Your task to perform on an android device: Search for sushi restaurants on Maps Image 0: 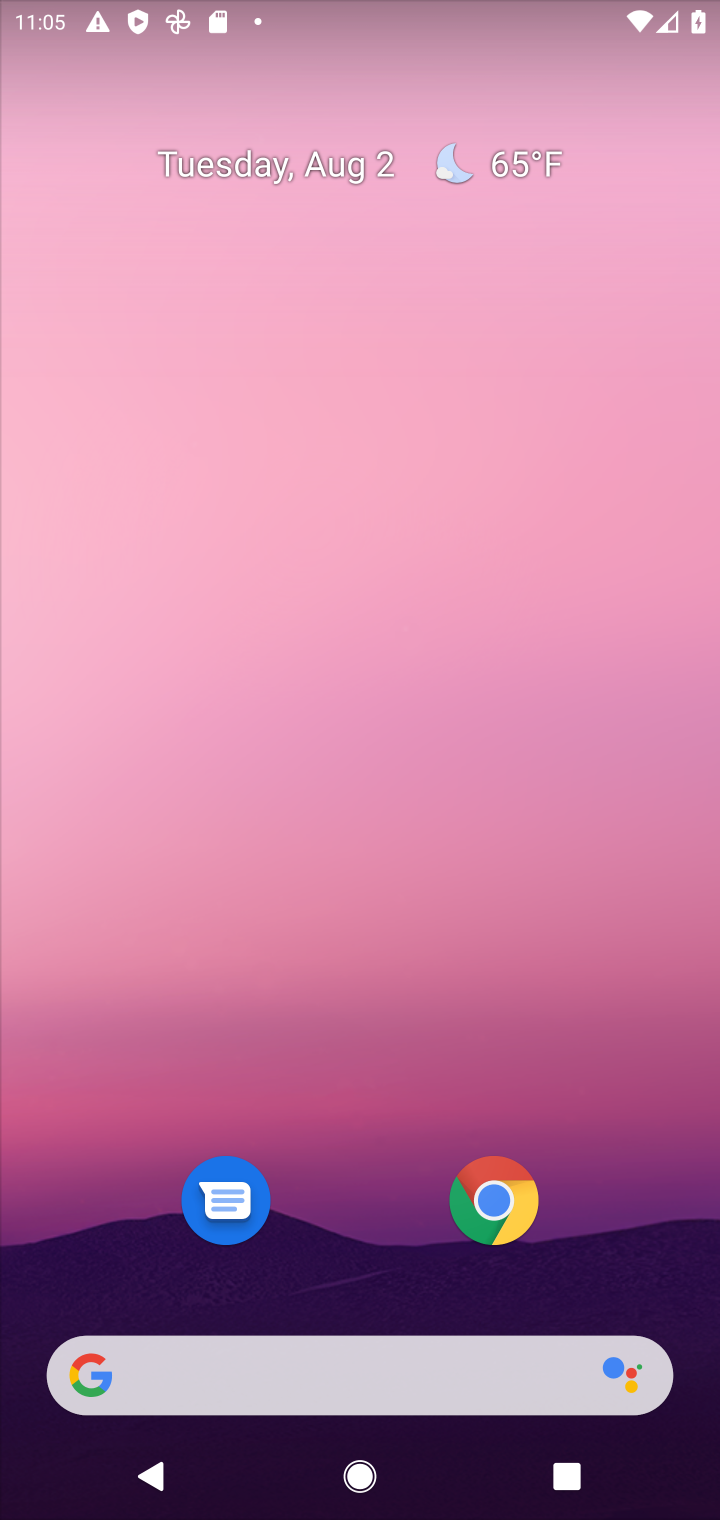
Step 0: drag from (621, 880) to (589, 173)
Your task to perform on an android device: Search for sushi restaurants on Maps Image 1: 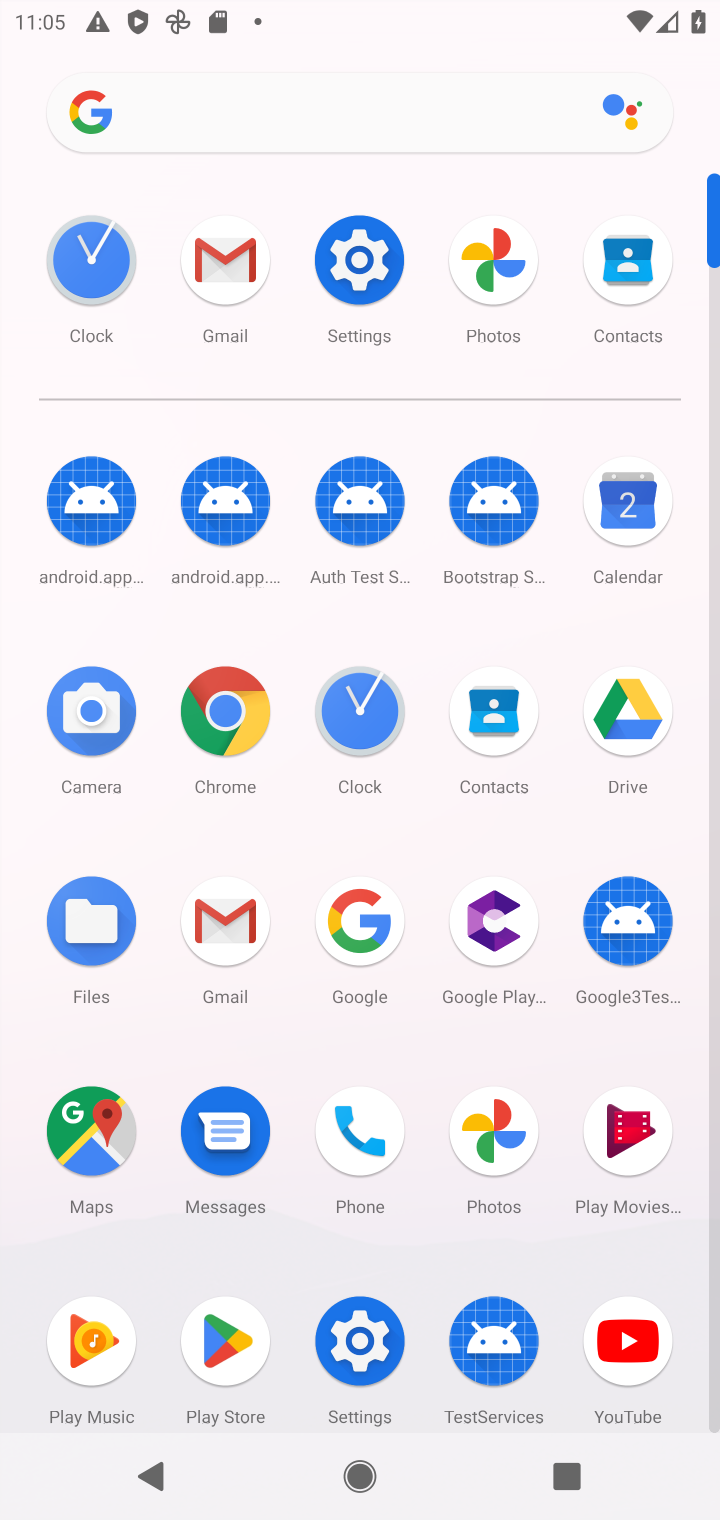
Step 1: click (90, 1133)
Your task to perform on an android device: Search for sushi restaurants on Maps Image 2: 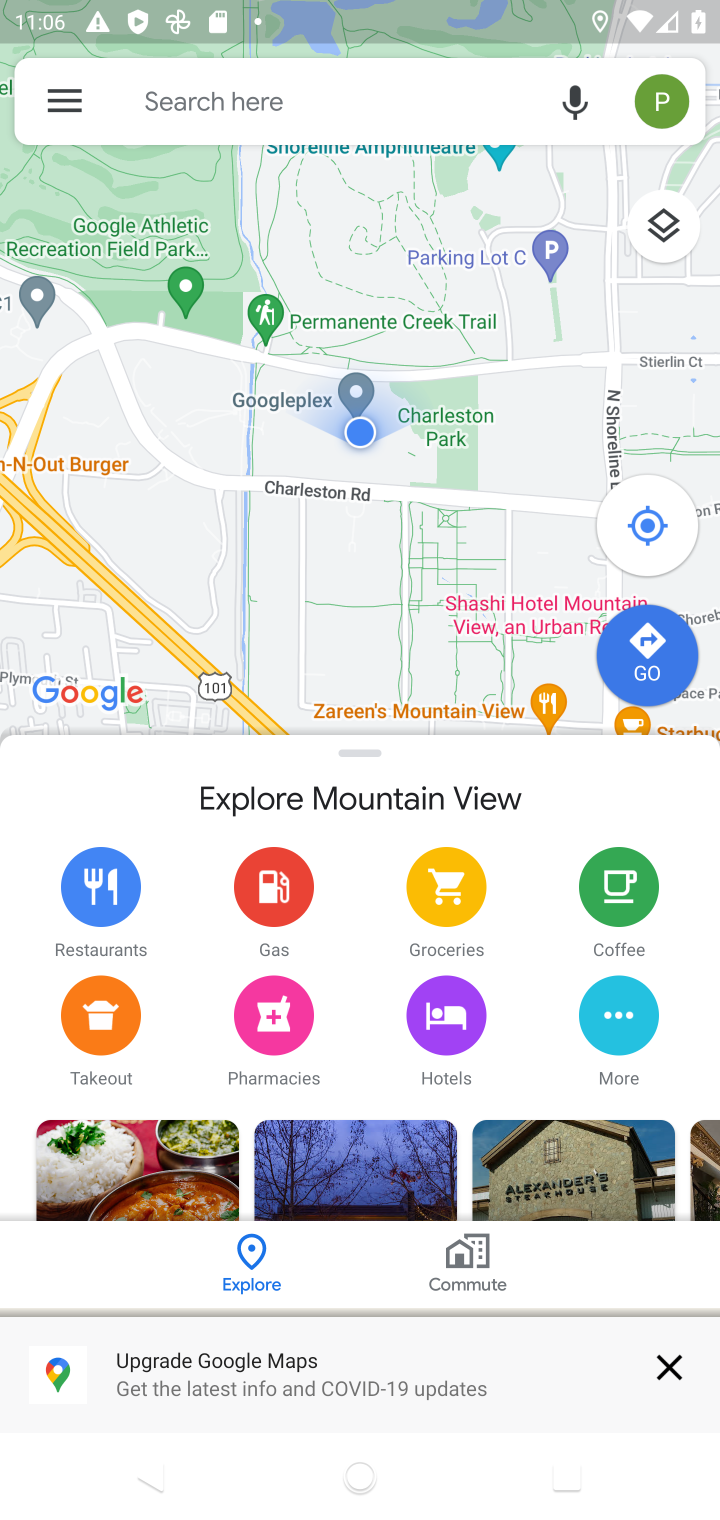
Step 2: click (208, 91)
Your task to perform on an android device: Search for sushi restaurants on Maps Image 3: 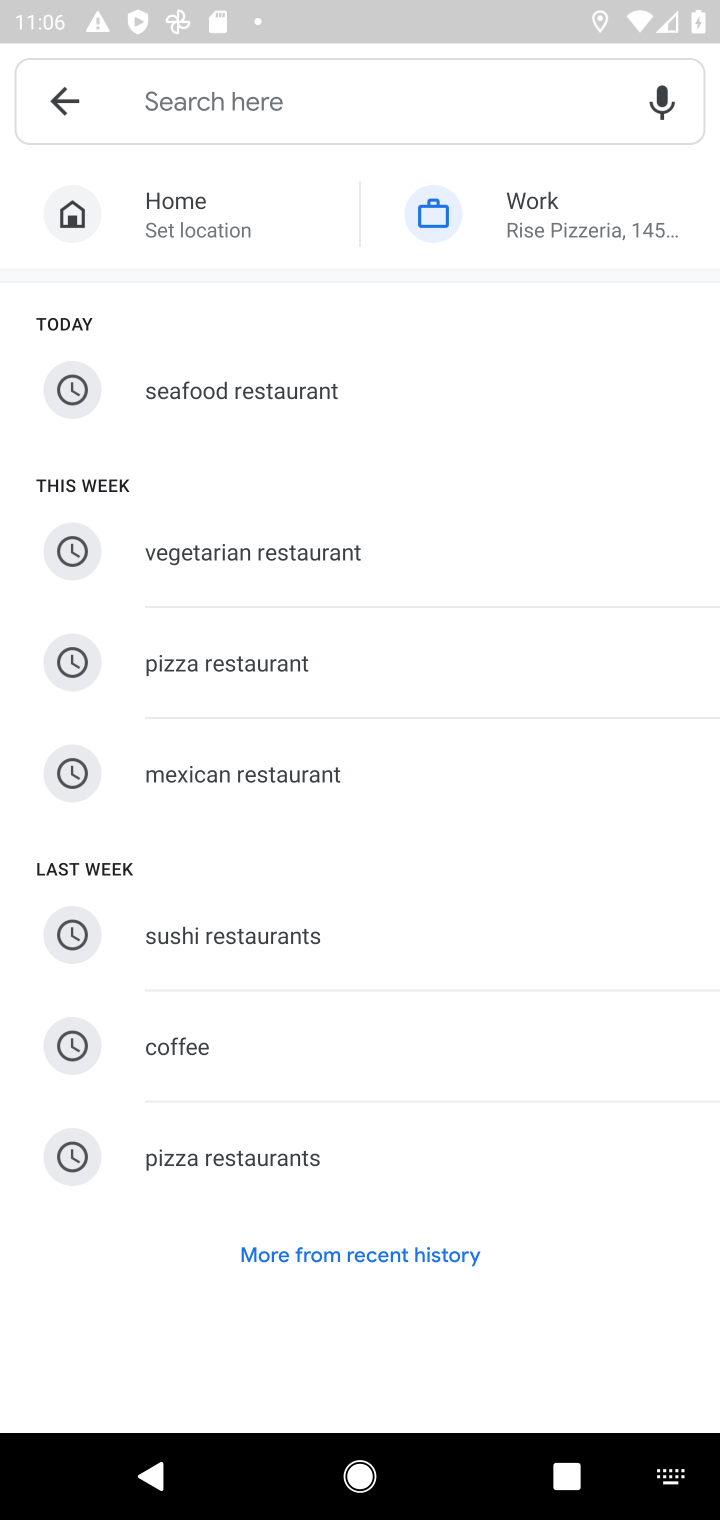
Step 3: type "sushi restaurants"
Your task to perform on an android device: Search for sushi restaurants on Maps Image 4: 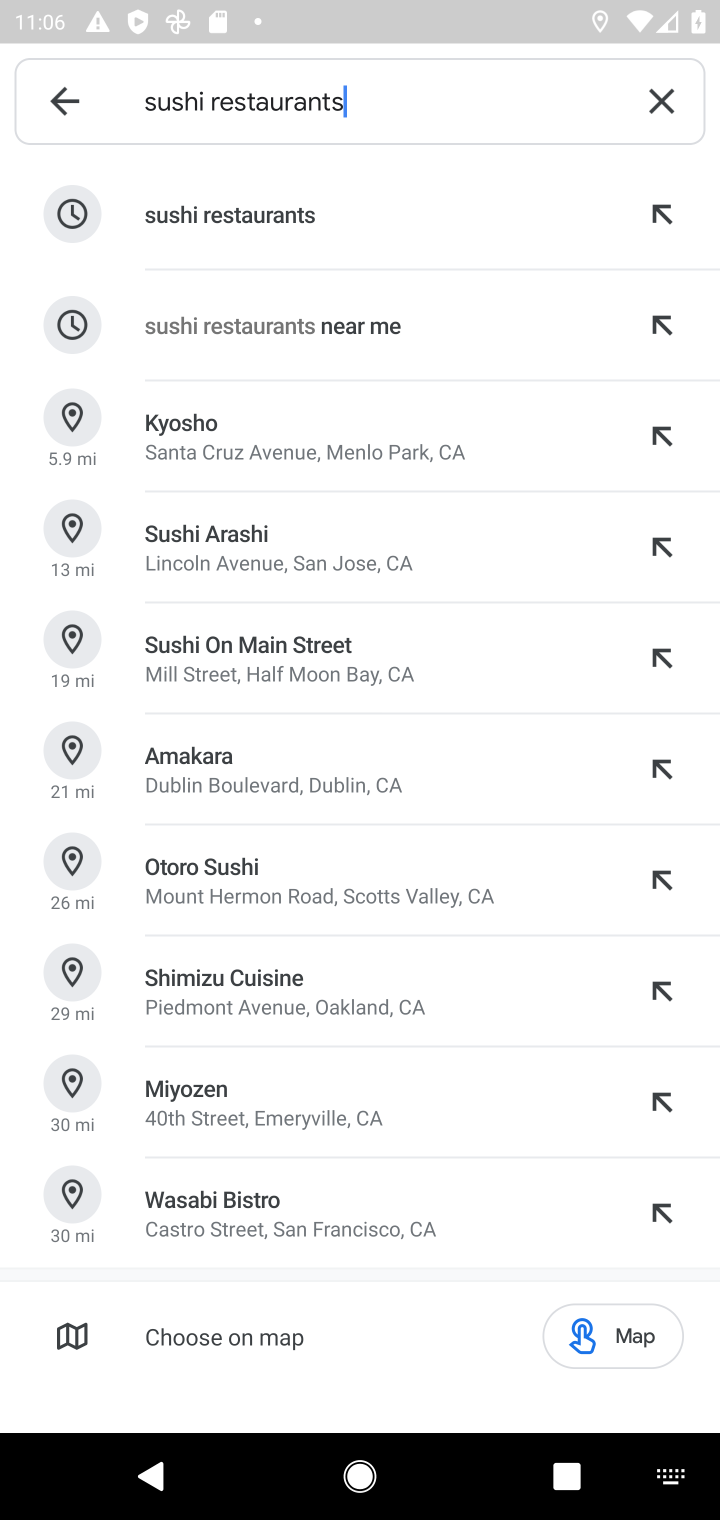
Step 4: click (244, 202)
Your task to perform on an android device: Search for sushi restaurants on Maps Image 5: 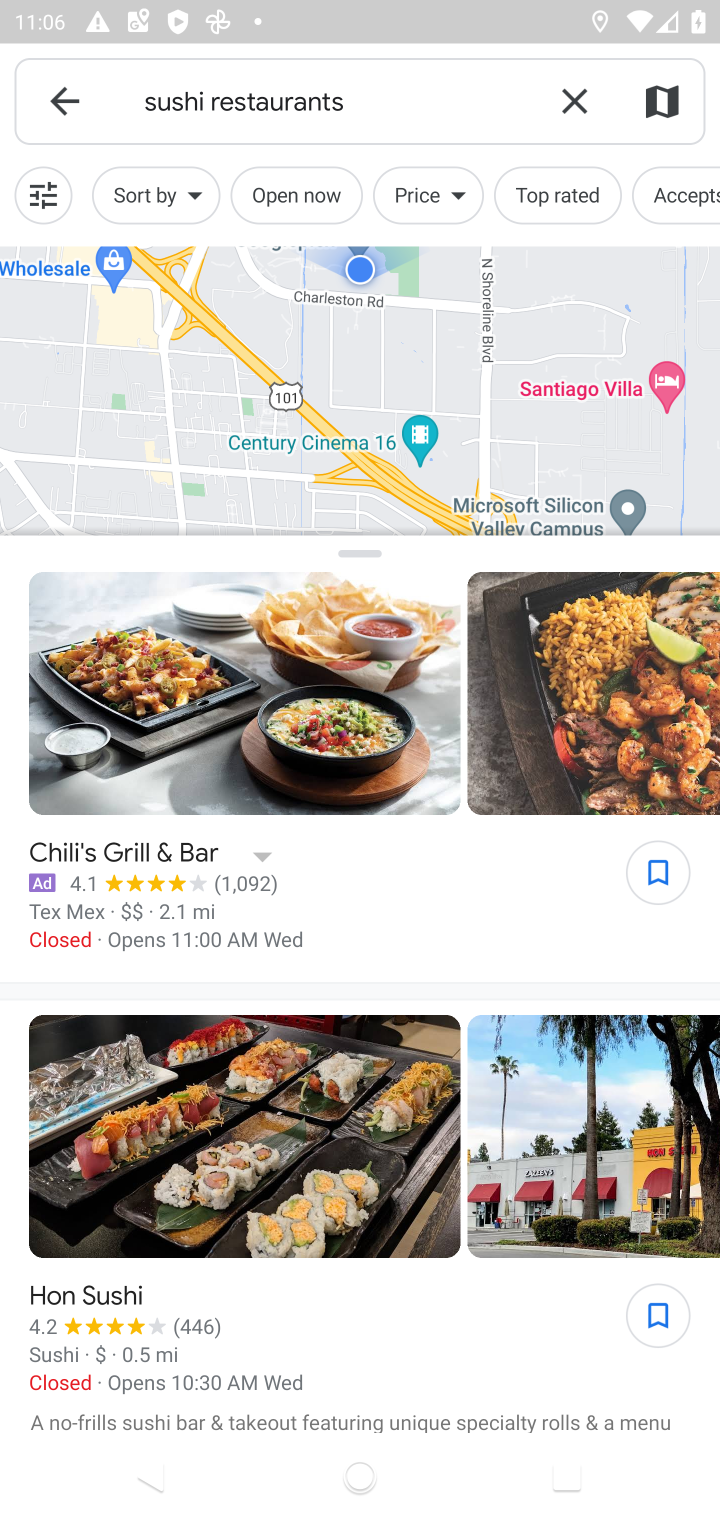
Step 5: task complete